Your task to perform on an android device: turn on the 12-hour format for clock Image 0: 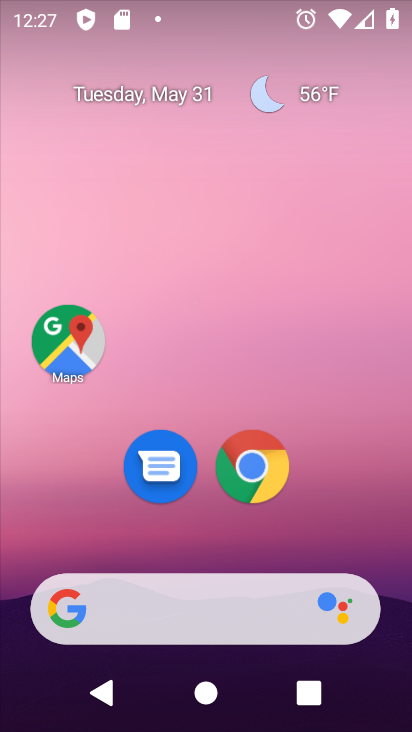
Step 0: drag from (158, 597) to (133, 21)
Your task to perform on an android device: turn on the 12-hour format for clock Image 1: 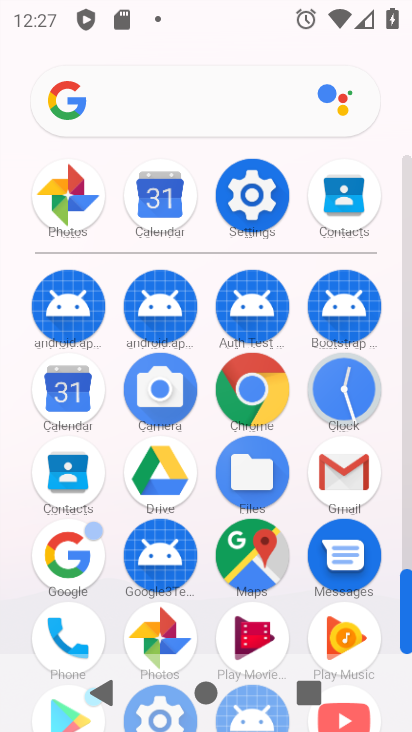
Step 1: click (240, 195)
Your task to perform on an android device: turn on the 12-hour format for clock Image 2: 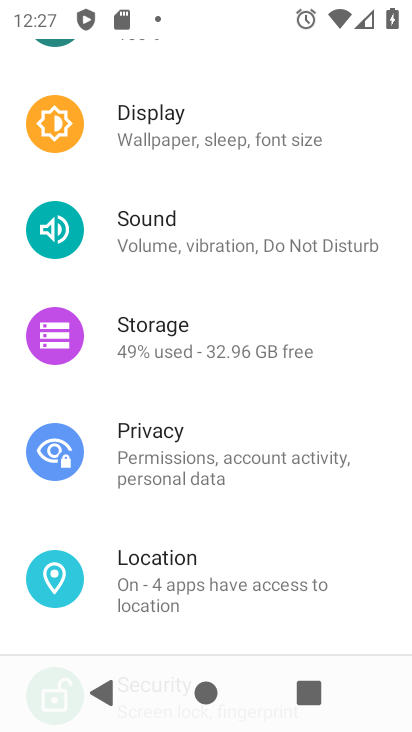
Step 2: drag from (168, 548) to (166, 16)
Your task to perform on an android device: turn on the 12-hour format for clock Image 3: 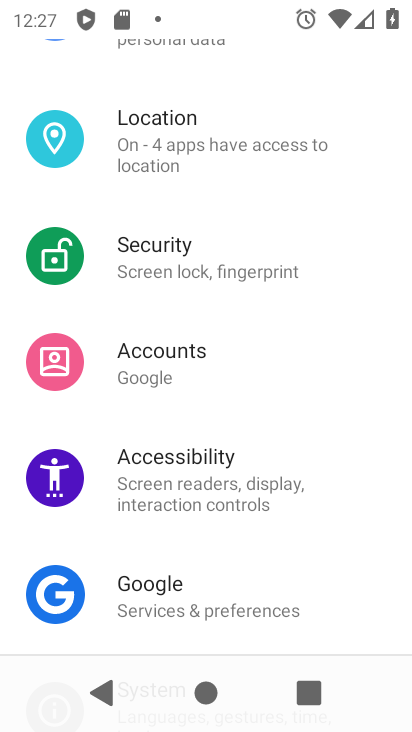
Step 3: drag from (160, 589) to (58, 20)
Your task to perform on an android device: turn on the 12-hour format for clock Image 4: 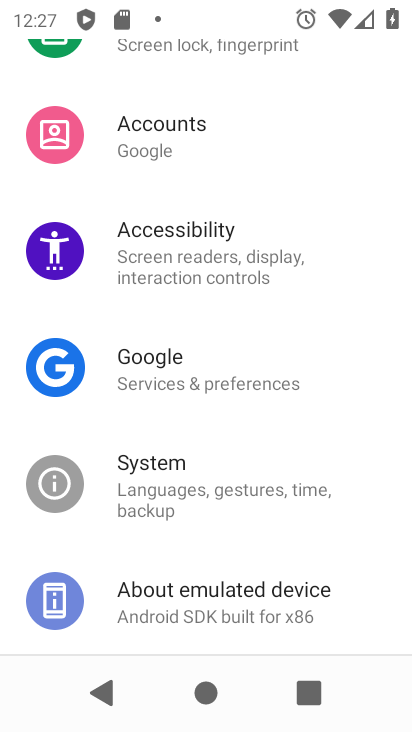
Step 4: click (157, 505)
Your task to perform on an android device: turn on the 12-hour format for clock Image 5: 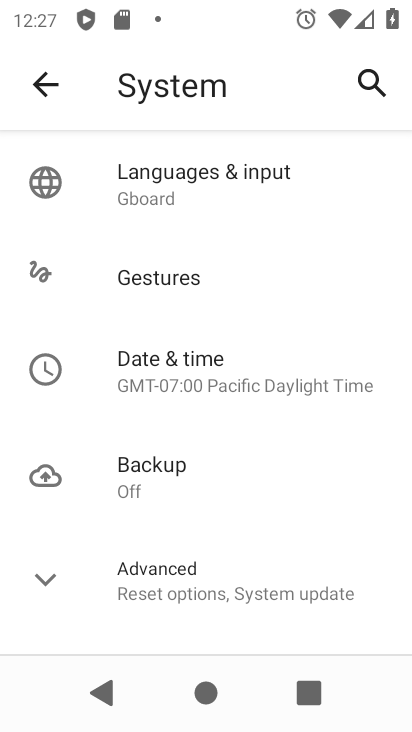
Step 5: drag from (235, 484) to (229, 27)
Your task to perform on an android device: turn on the 12-hour format for clock Image 6: 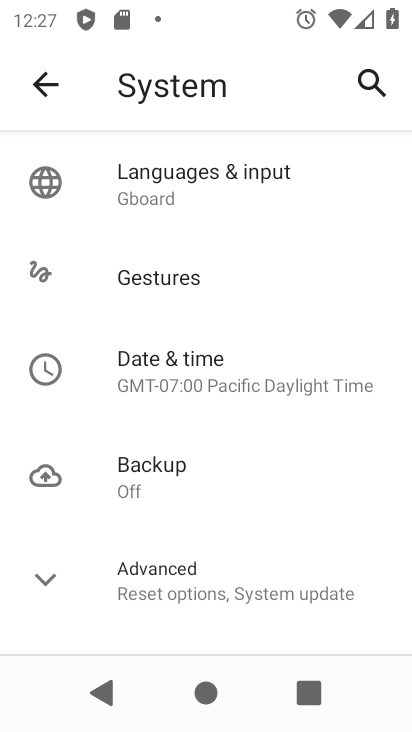
Step 6: click (163, 589)
Your task to perform on an android device: turn on the 12-hour format for clock Image 7: 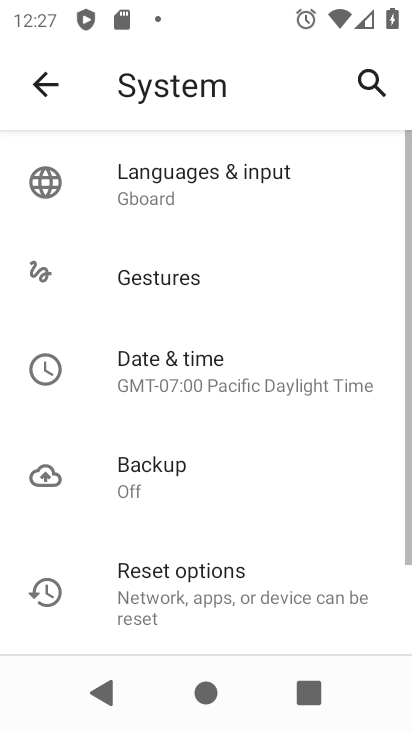
Step 7: drag from (201, 540) to (161, 30)
Your task to perform on an android device: turn on the 12-hour format for clock Image 8: 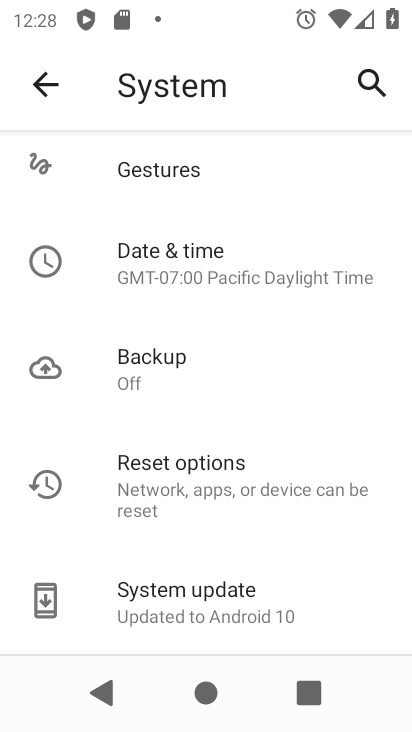
Step 8: drag from (144, 259) to (140, 720)
Your task to perform on an android device: turn on the 12-hour format for clock Image 9: 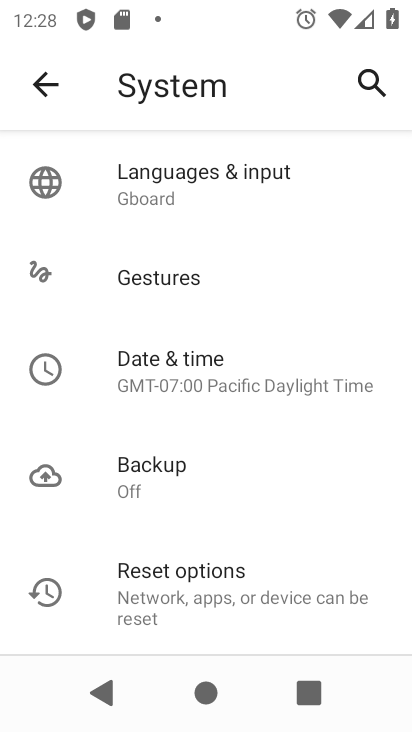
Step 9: click (169, 364)
Your task to perform on an android device: turn on the 12-hour format for clock Image 10: 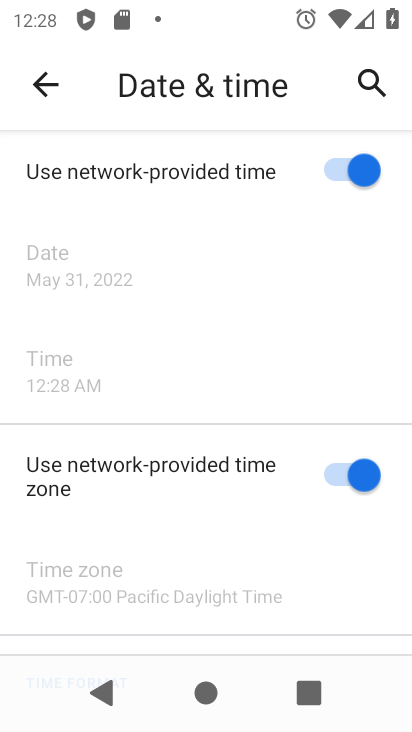
Step 10: task complete